Your task to perform on an android device: toggle pop-ups in chrome Image 0: 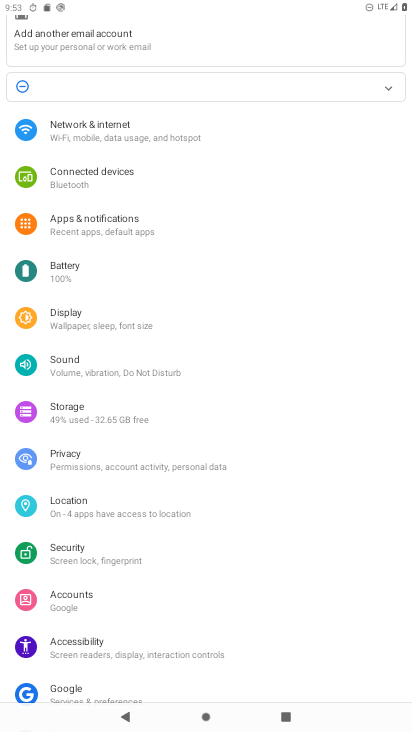
Step 0: press home button
Your task to perform on an android device: toggle pop-ups in chrome Image 1: 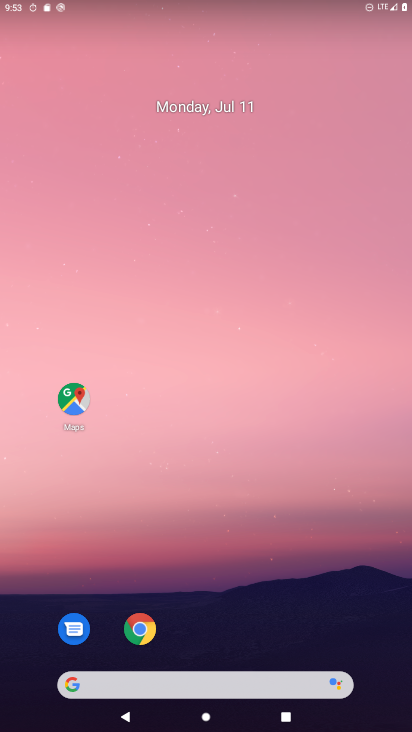
Step 1: click (141, 634)
Your task to perform on an android device: toggle pop-ups in chrome Image 2: 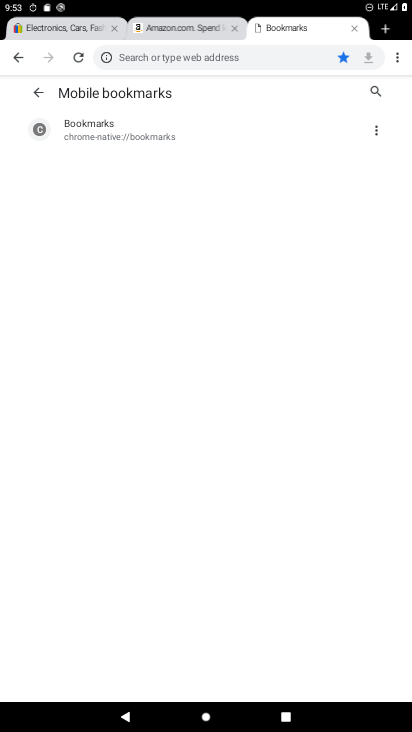
Step 2: click (401, 53)
Your task to perform on an android device: toggle pop-ups in chrome Image 3: 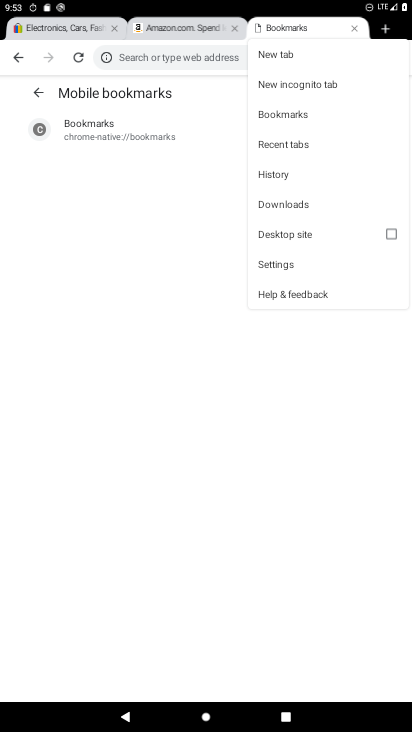
Step 3: click (290, 257)
Your task to perform on an android device: toggle pop-ups in chrome Image 4: 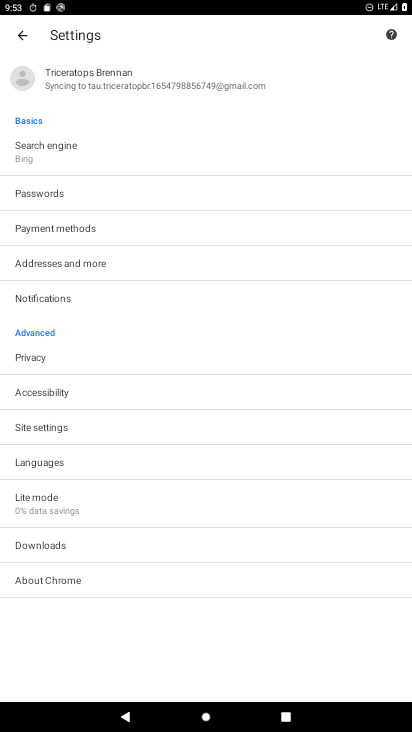
Step 4: click (85, 426)
Your task to perform on an android device: toggle pop-ups in chrome Image 5: 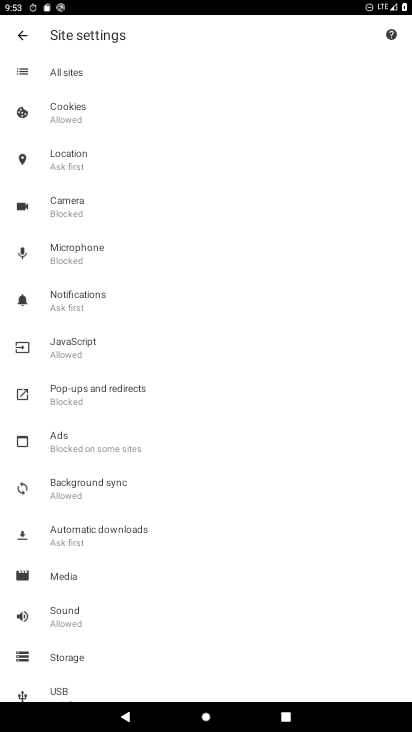
Step 5: click (121, 392)
Your task to perform on an android device: toggle pop-ups in chrome Image 6: 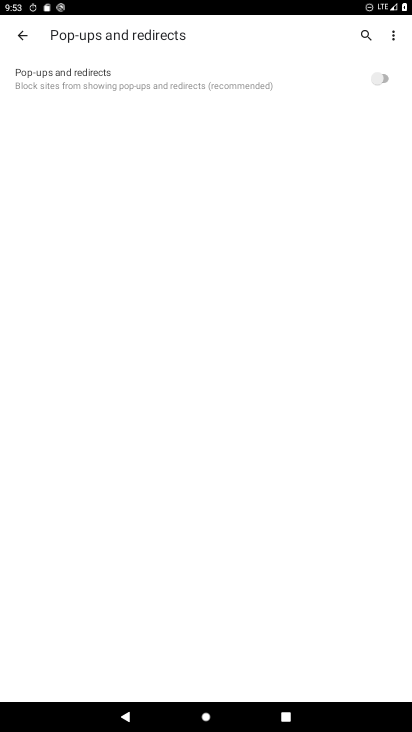
Step 6: click (386, 70)
Your task to perform on an android device: toggle pop-ups in chrome Image 7: 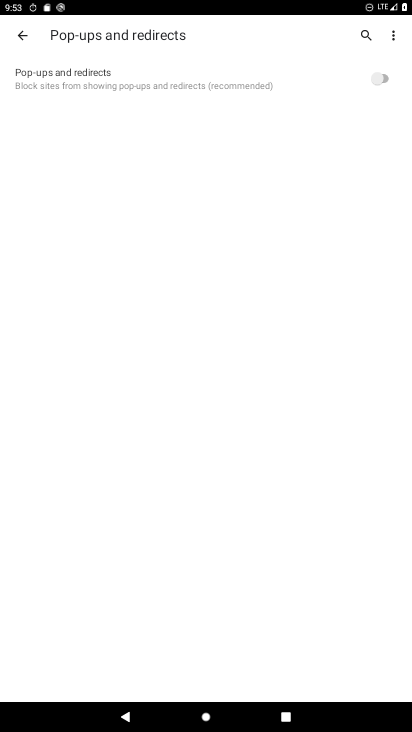
Step 7: click (386, 70)
Your task to perform on an android device: toggle pop-ups in chrome Image 8: 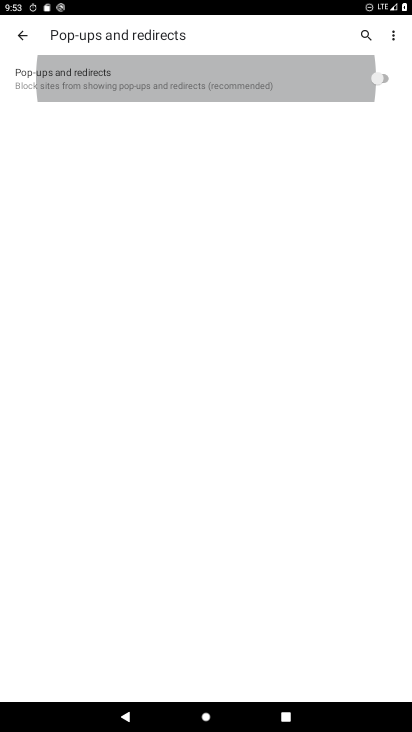
Step 8: click (386, 70)
Your task to perform on an android device: toggle pop-ups in chrome Image 9: 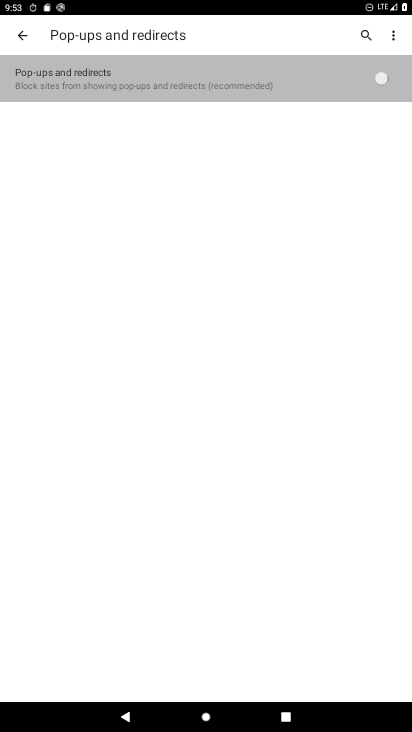
Step 9: click (386, 70)
Your task to perform on an android device: toggle pop-ups in chrome Image 10: 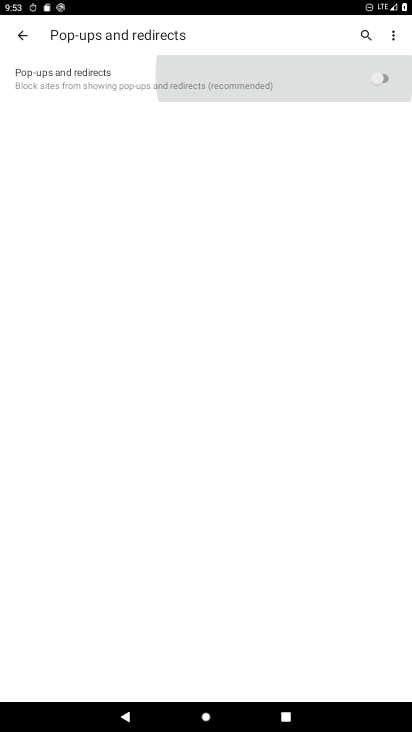
Step 10: click (386, 70)
Your task to perform on an android device: toggle pop-ups in chrome Image 11: 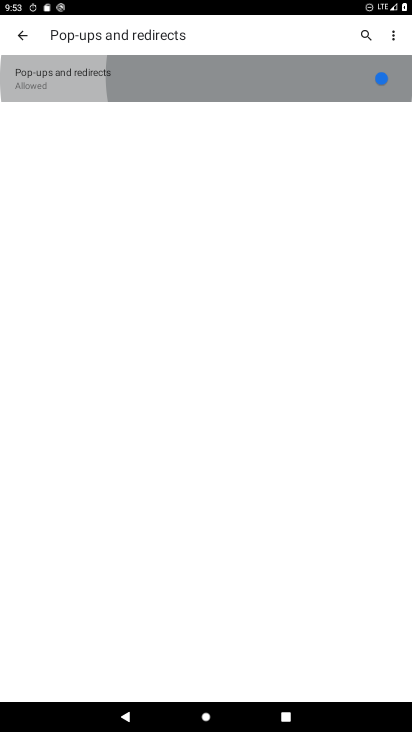
Step 11: click (386, 70)
Your task to perform on an android device: toggle pop-ups in chrome Image 12: 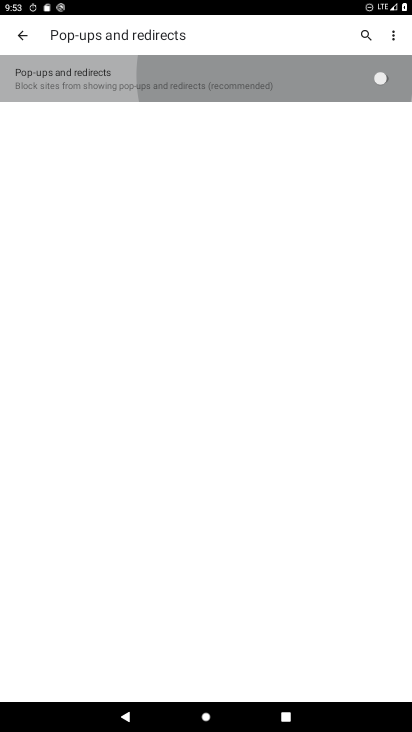
Step 12: click (386, 70)
Your task to perform on an android device: toggle pop-ups in chrome Image 13: 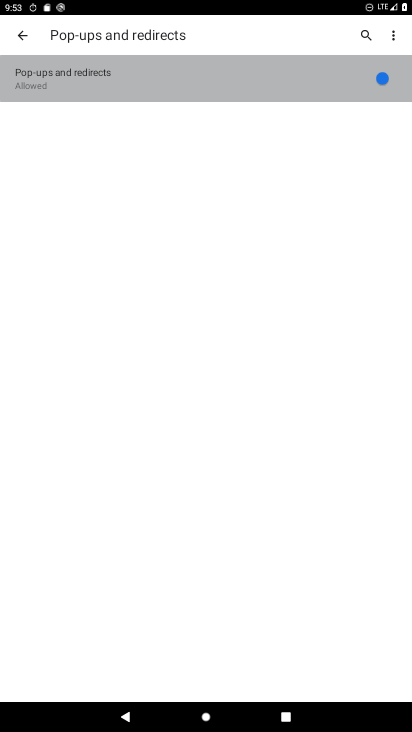
Step 13: click (386, 70)
Your task to perform on an android device: toggle pop-ups in chrome Image 14: 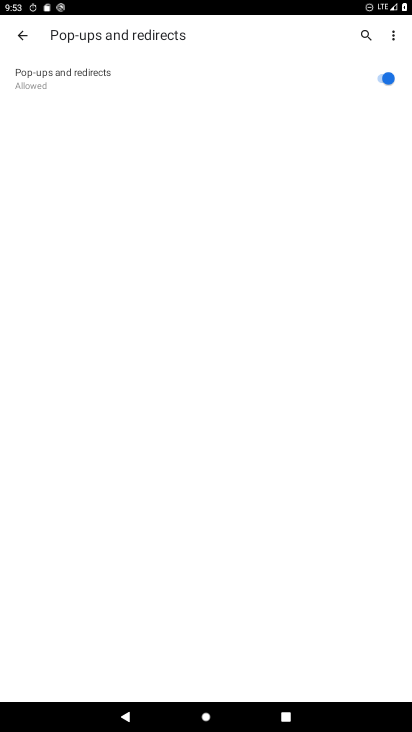
Step 14: click (386, 70)
Your task to perform on an android device: toggle pop-ups in chrome Image 15: 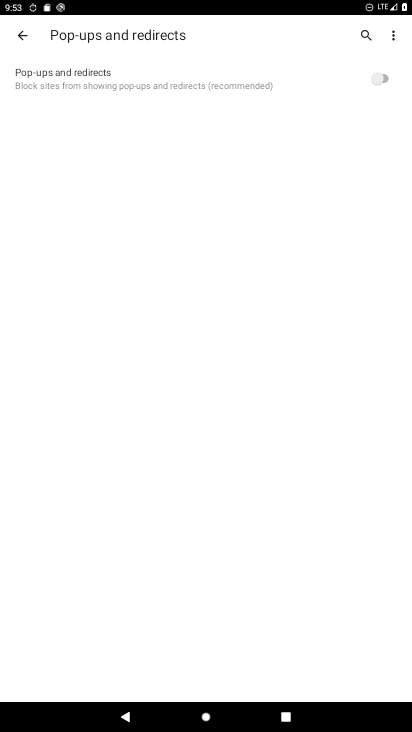
Step 15: task complete